Your task to perform on an android device: change timer sound Image 0: 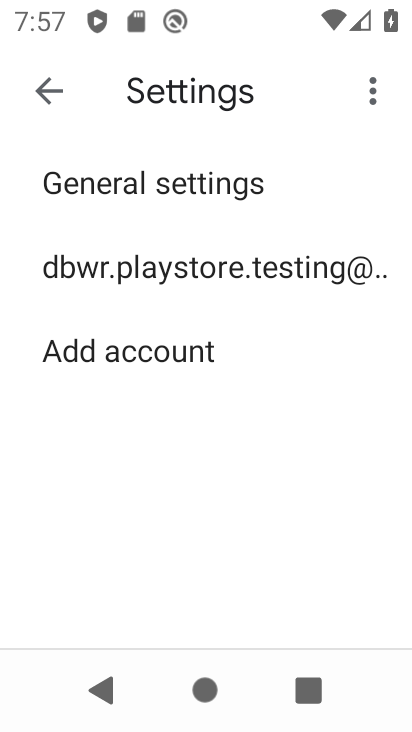
Step 0: press home button
Your task to perform on an android device: change timer sound Image 1: 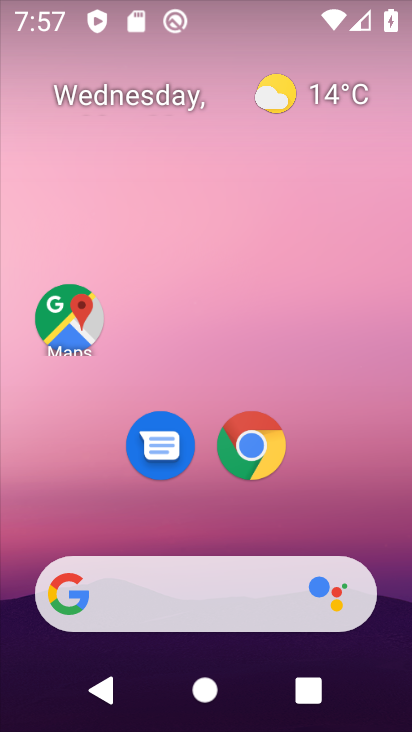
Step 1: drag from (280, 574) to (272, 212)
Your task to perform on an android device: change timer sound Image 2: 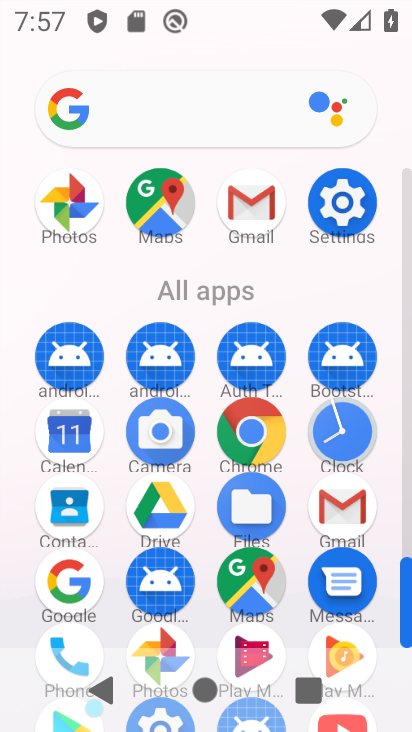
Step 2: drag from (270, 588) to (318, 329)
Your task to perform on an android device: change timer sound Image 3: 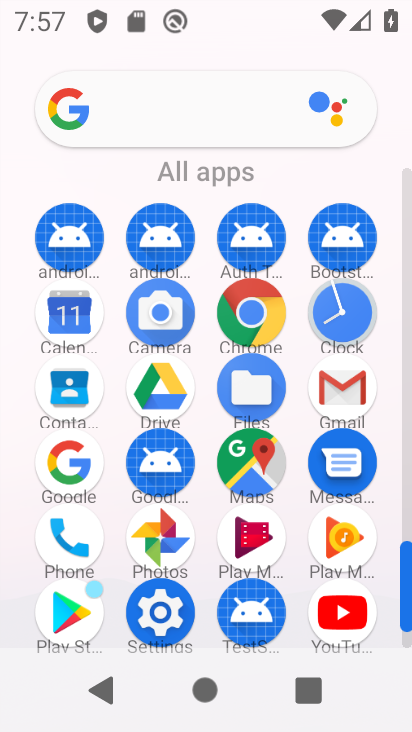
Step 3: click (332, 331)
Your task to perform on an android device: change timer sound Image 4: 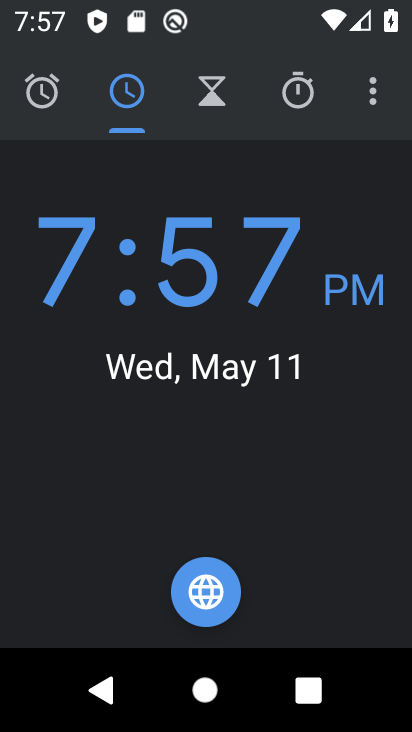
Step 4: click (370, 101)
Your task to perform on an android device: change timer sound Image 5: 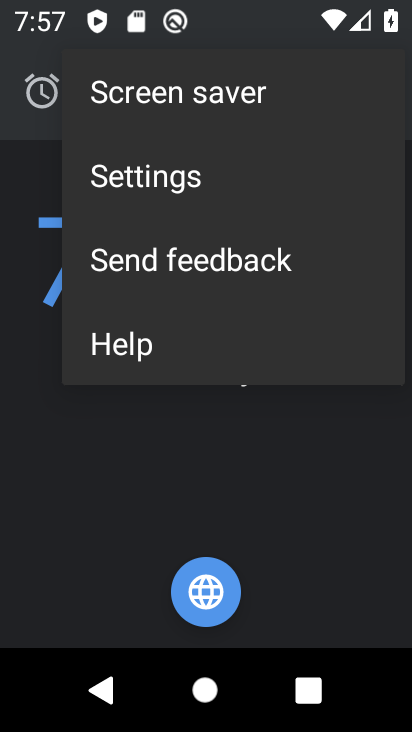
Step 5: click (315, 189)
Your task to perform on an android device: change timer sound Image 6: 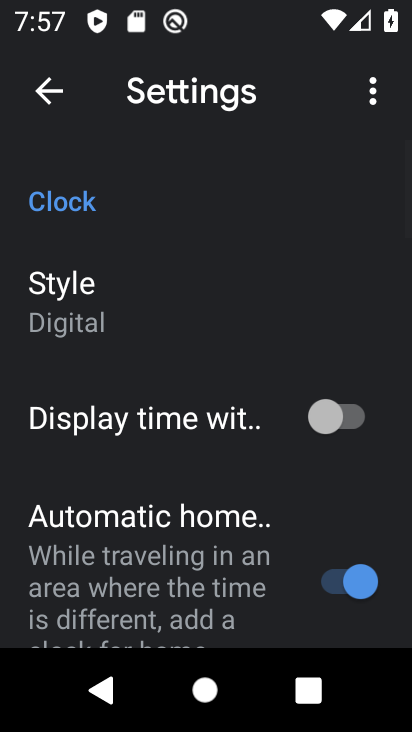
Step 6: drag from (260, 482) to (250, 181)
Your task to perform on an android device: change timer sound Image 7: 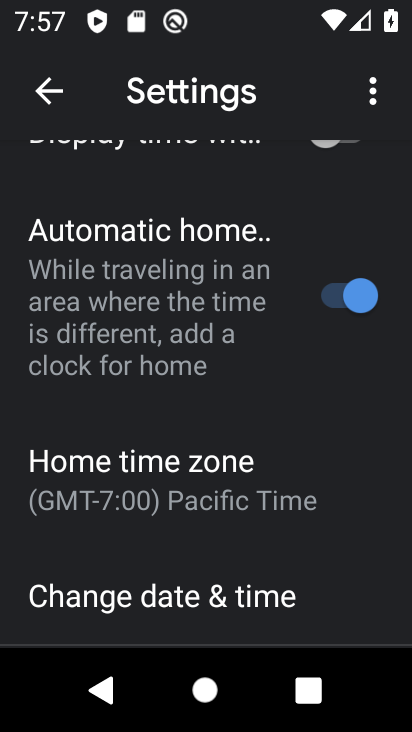
Step 7: drag from (248, 476) to (282, 181)
Your task to perform on an android device: change timer sound Image 8: 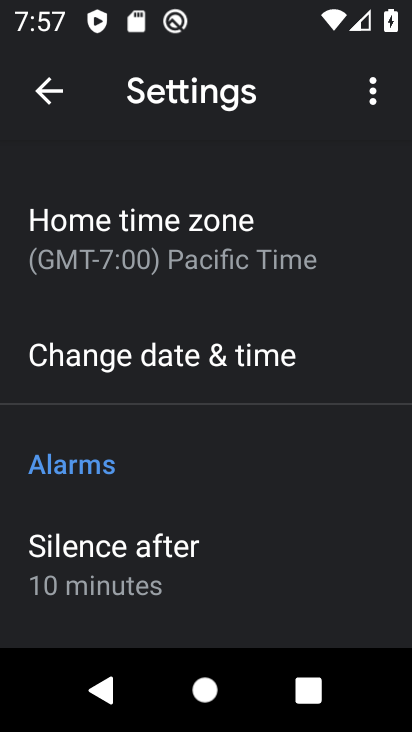
Step 8: drag from (264, 369) to (296, 59)
Your task to perform on an android device: change timer sound Image 9: 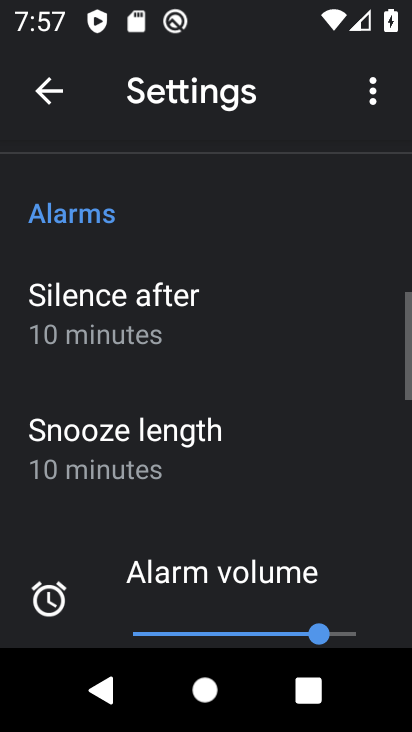
Step 9: drag from (282, 486) to (306, 145)
Your task to perform on an android device: change timer sound Image 10: 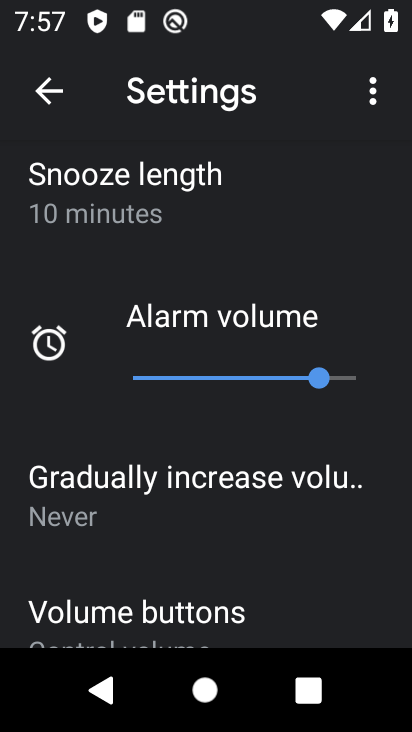
Step 10: drag from (282, 535) to (276, 160)
Your task to perform on an android device: change timer sound Image 11: 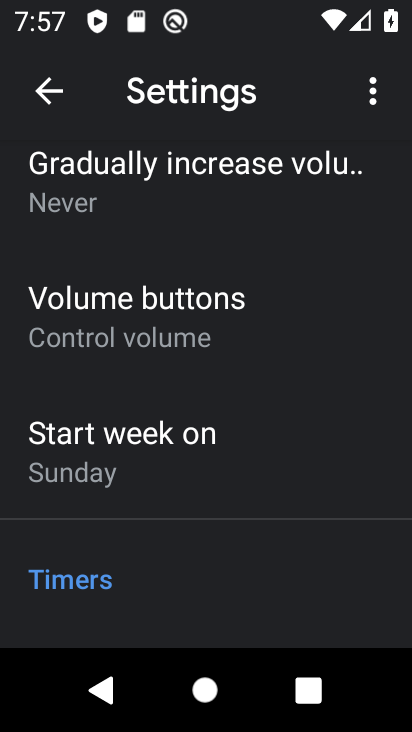
Step 11: drag from (320, 537) to (308, 181)
Your task to perform on an android device: change timer sound Image 12: 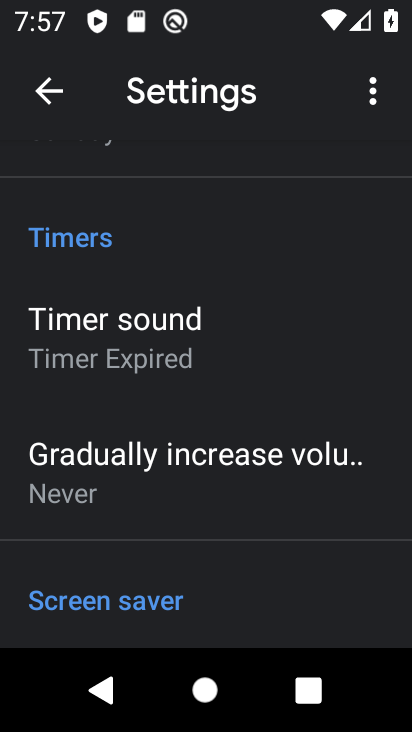
Step 12: click (258, 336)
Your task to perform on an android device: change timer sound Image 13: 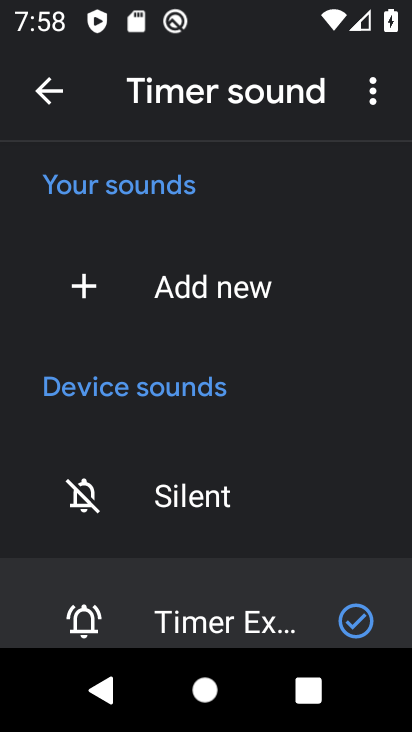
Step 13: drag from (291, 502) to (290, 152)
Your task to perform on an android device: change timer sound Image 14: 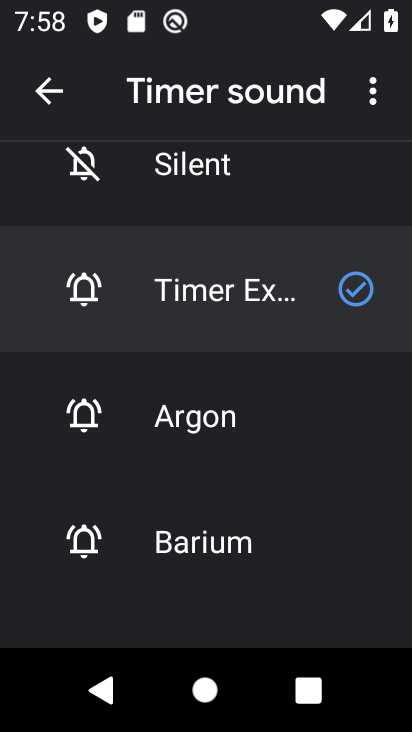
Step 14: click (322, 408)
Your task to perform on an android device: change timer sound Image 15: 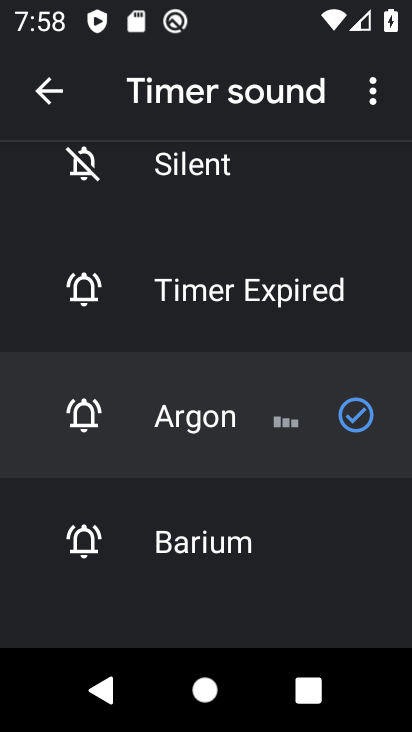
Step 15: task complete